Your task to perform on an android device: set default search engine in the chrome app Image 0: 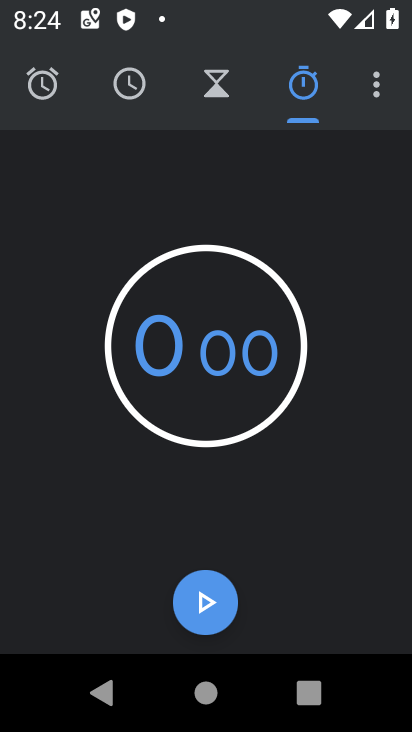
Step 0: press home button
Your task to perform on an android device: set default search engine in the chrome app Image 1: 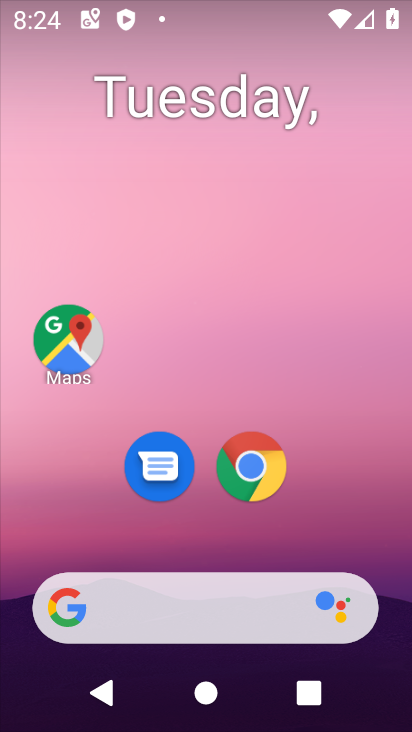
Step 1: click (390, 503)
Your task to perform on an android device: set default search engine in the chrome app Image 2: 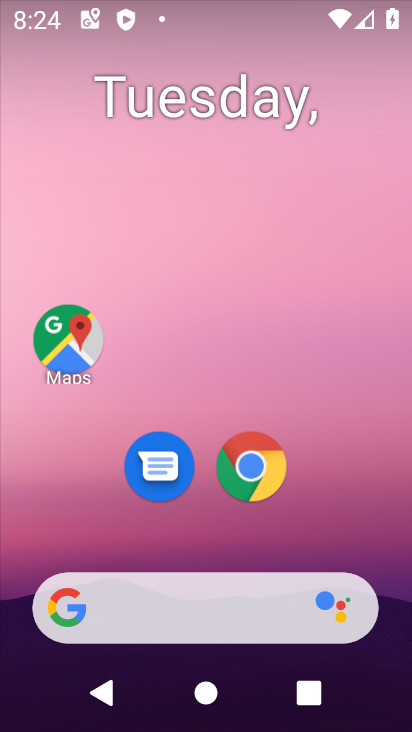
Step 2: click (390, 503)
Your task to perform on an android device: set default search engine in the chrome app Image 3: 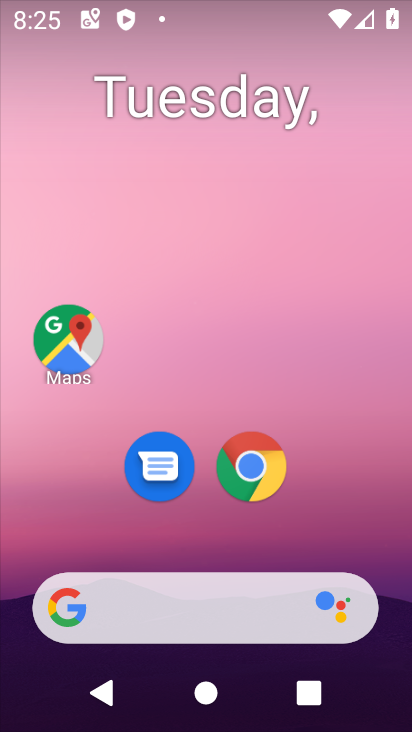
Step 3: click (279, 472)
Your task to perform on an android device: set default search engine in the chrome app Image 4: 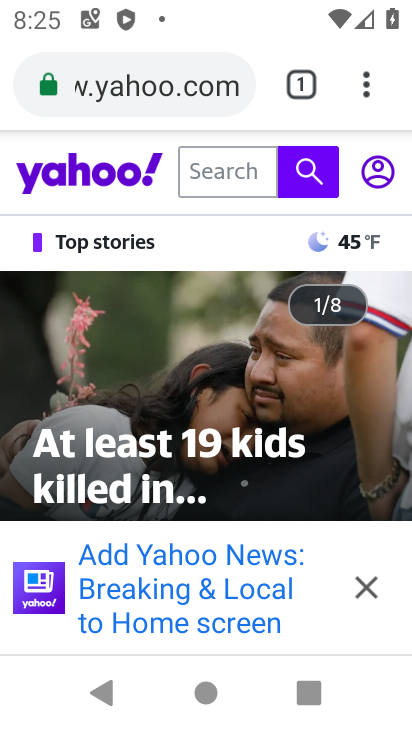
Step 4: click (367, 92)
Your task to perform on an android device: set default search engine in the chrome app Image 5: 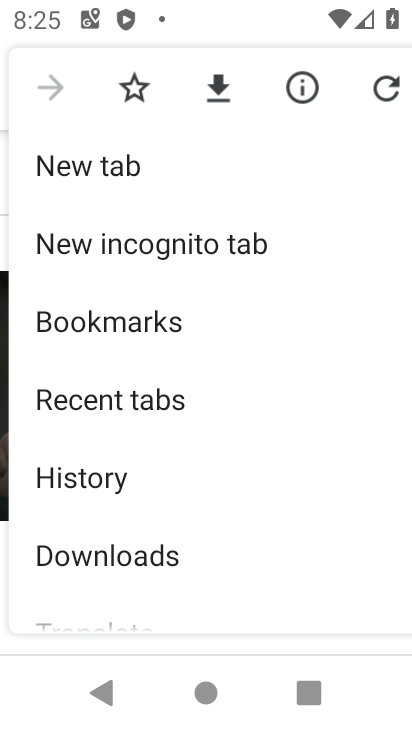
Step 5: drag from (209, 498) to (147, 78)
Your task to perform on an android device: set default search engine in the chrome app Image 6: 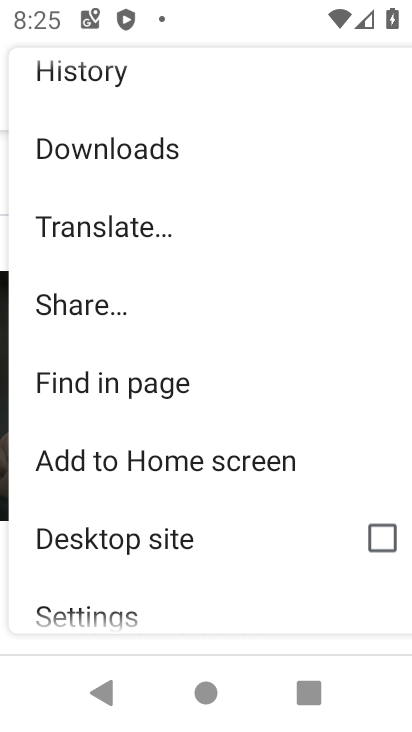
Step 6: click (102, 591)
Your task to perform on an android device: set default search engine in the chrome app Image 7: 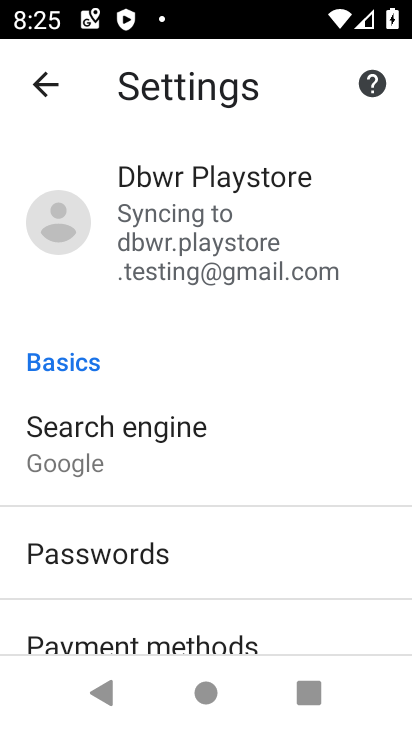
Step 7: click (237, 460)
Your task to perform on an android device: set default search engine in the chrome app Image 8: 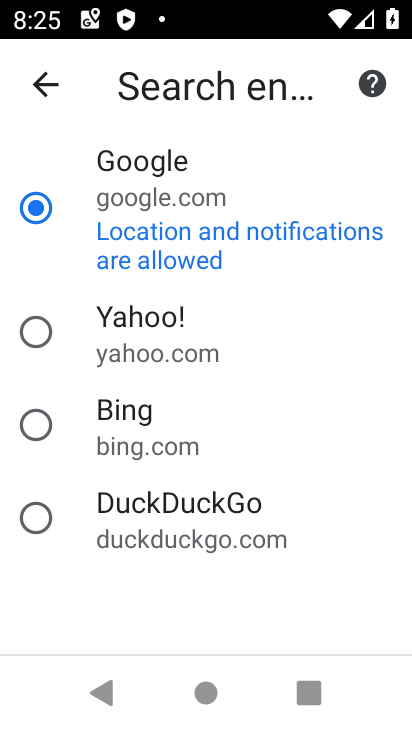
Step 8: click (155, 332)
Your task to perform on an android device: set default search engine in the chrome app Image 9: 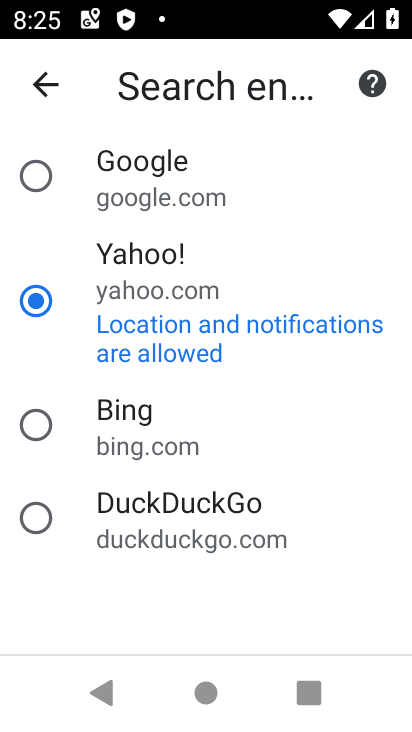
Step 9: task complete